Your task to perform on an android device: Do I have any events today? Image 0: 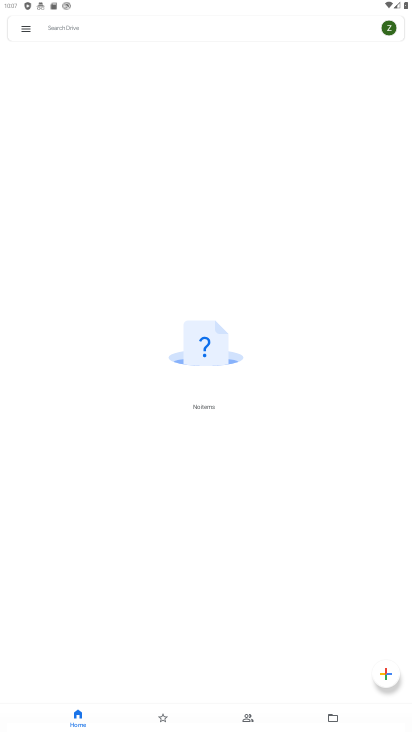
Step 0: press home button
Your task to perform on an android device: Do I have any events today? Image 1: 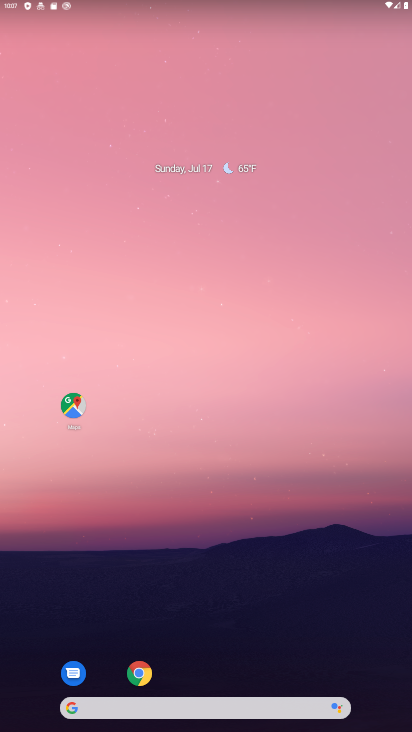
Step 1: drag from (251, 650) to (276, 154)
Your task to perform on an android device: Do I have any events today? Image 2: 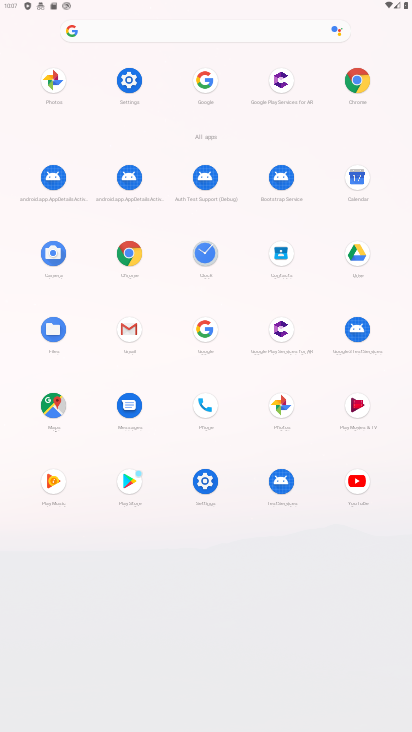
Step 2: click (363, 176)
Your task to perform on an android device: Do I have any events today? Image 3: 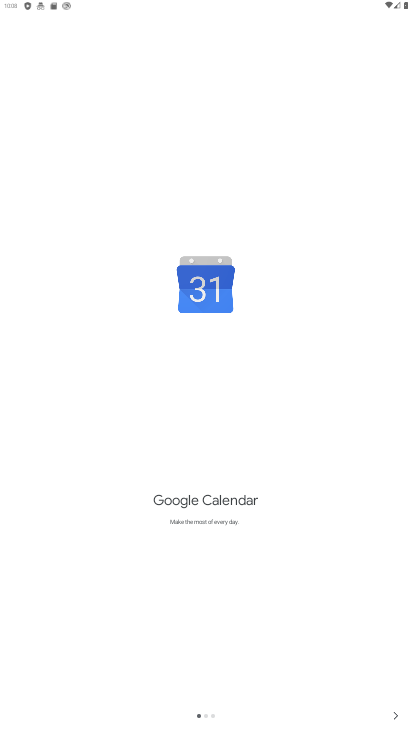
Step 3: click (394, 713)
Your task to perform on an android device: Do I have any events today? Image 4: 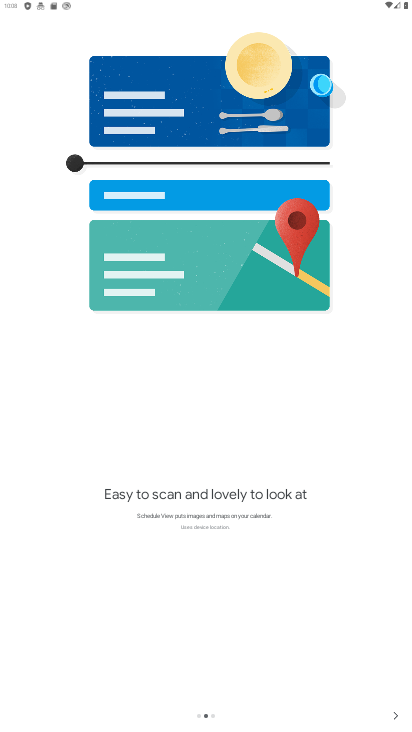
Step 4: click (393, 718)
Your task to perform on an android device: Do I have any events today? Image 5: 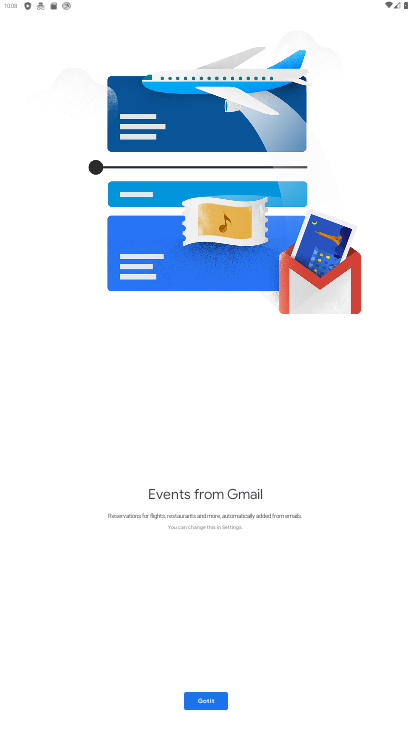
Step 5: click (197, 701)
Your task to perform on an android device: Do I have any events today? Image 6: 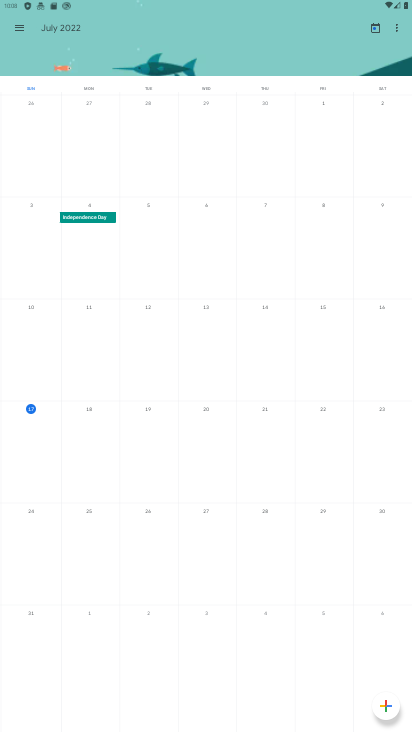
Step 6: click (24, 30)
Your task to perform on an android device: Do I have any events today? Image 7: 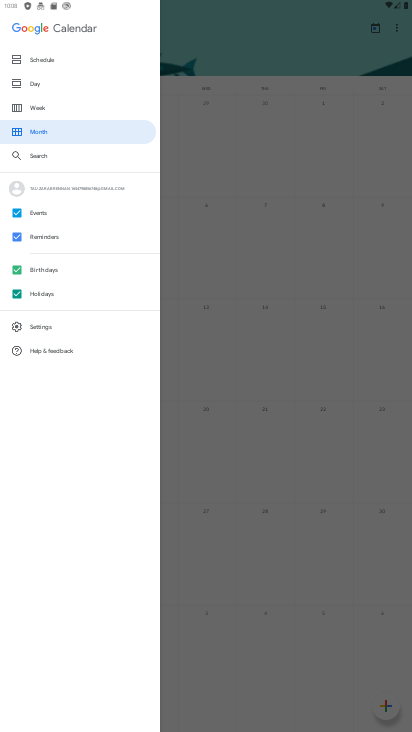
Step 7: click (75, 57)
Your task to perform on an android device: Do I have any events today? Image 8: 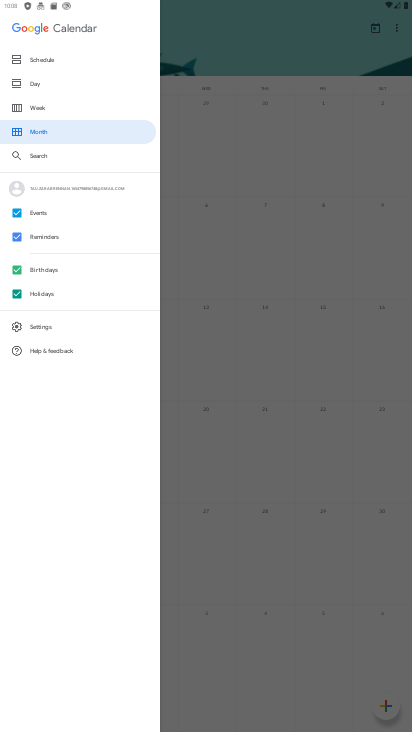
Step 8: click (73, 54)
Your task to perform on an android device: Do I have any events today? Image 9: 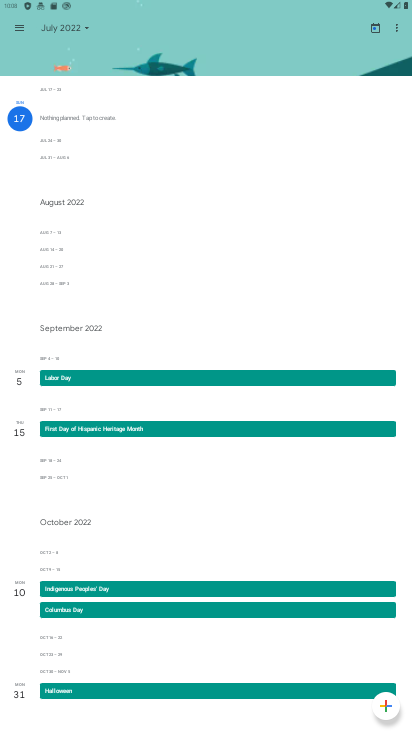
Step 9: task complete